Your task to perform on an android device: Go to ESPN.com Image 0: 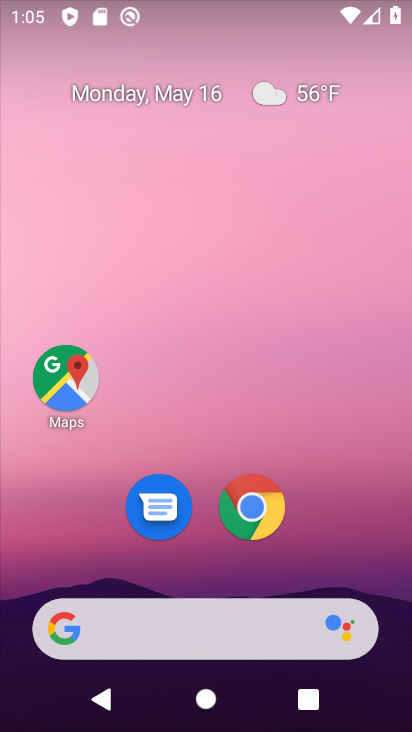
Step 0: click (263, 505)
Your task to perform on an android device: Go to ESPN.com Image 1: 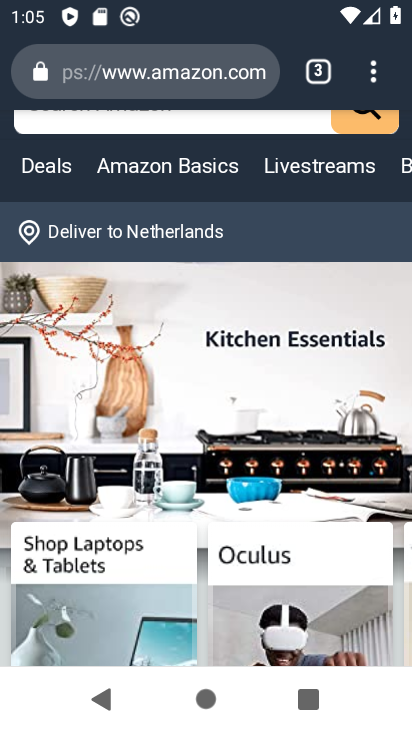
Step 1: click (319, 74)
Your task to perform on an android device: Go to ESPN.com Image 2: 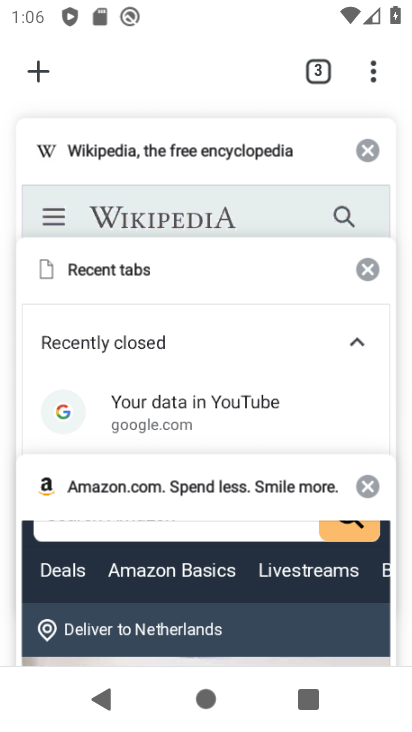
Step 2: click (45, 59)
Your task to perform on an android device: Go to ESPN.com Image 3: 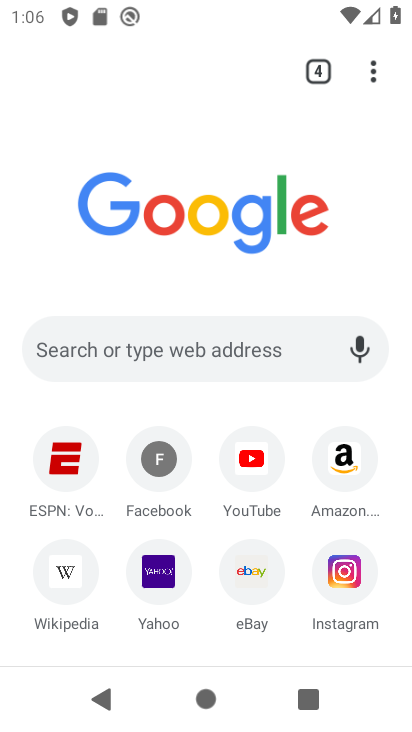
Step 3: click (77, 457)
Your task to perform on an android device: Go to ESPN.com Image 4: 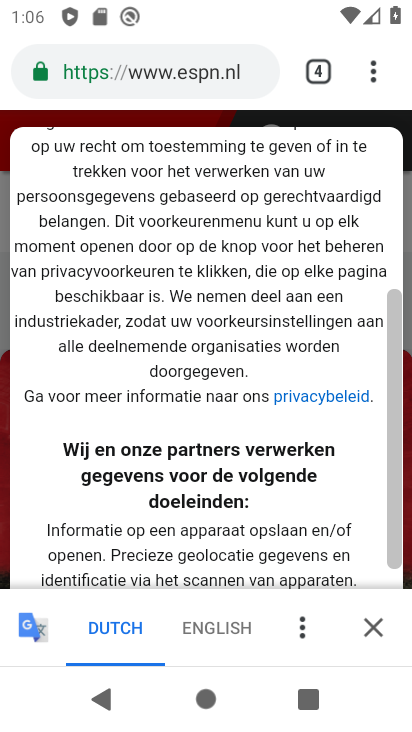
Step 4: task complete